Your task to perform on an android device: change text size in settings app Image 0: 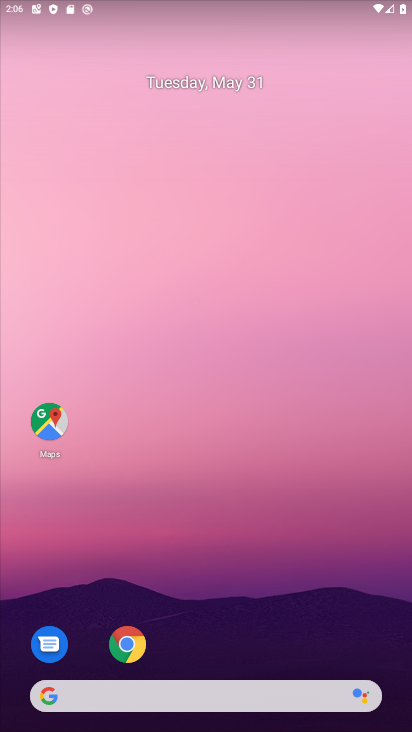
Step 0: drag from (390, 674) to (338, 189)
Your task to perform on an android device: change text size in settings app Image 1: 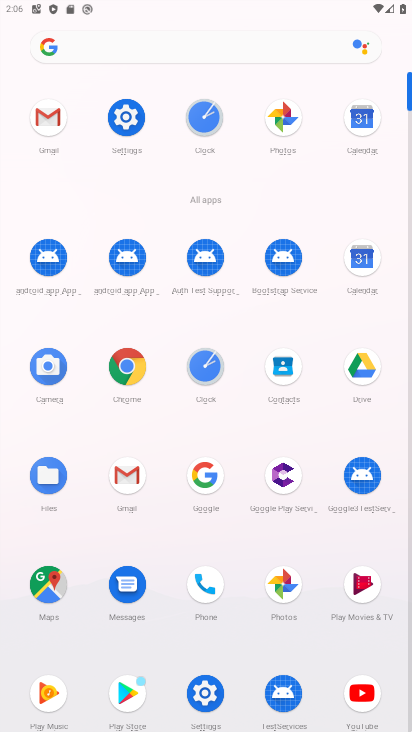
Step 1: click (134, 119)
Your task to perform on an android device: change text size in settings app Image 2: 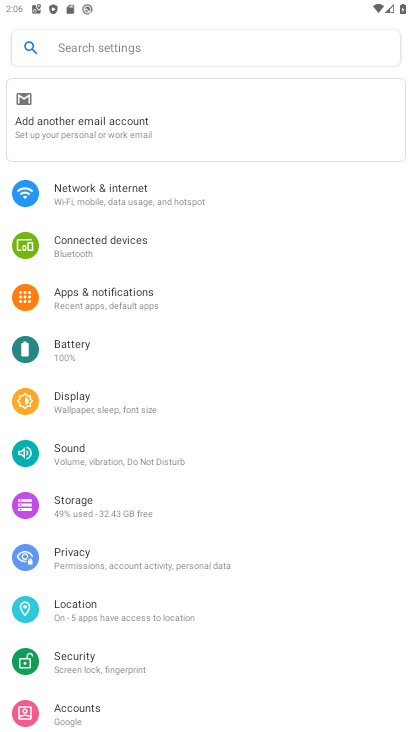
Step 2: click (77, 405)
Your task to perform on an android device: change text size in settings app Image 3: 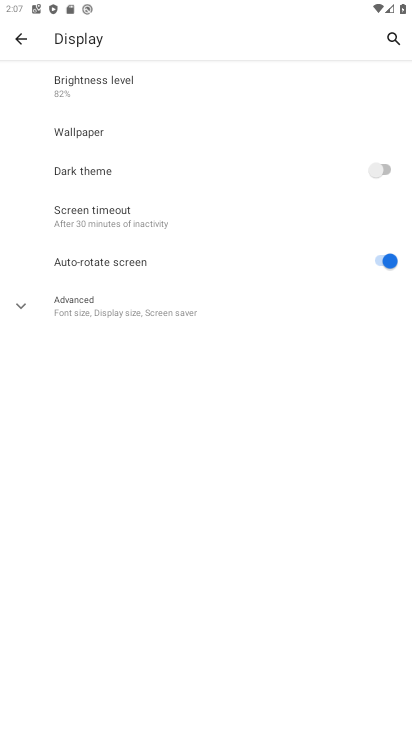
Step 3: click (11, 300)
Your task to perform on an android device: change text size in settings app Image 4: 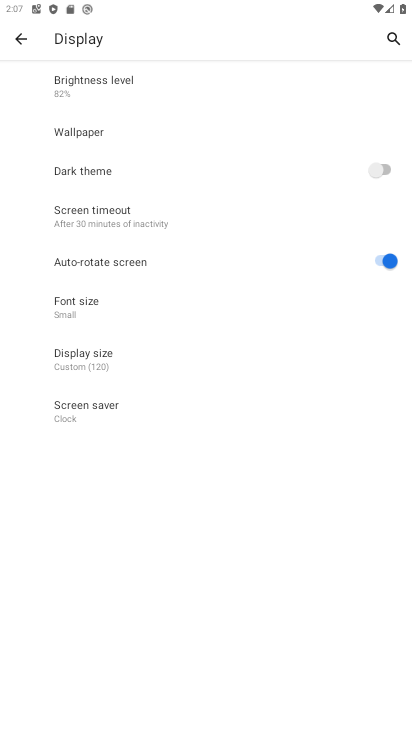
Step 4: click (84, 304)
Your task to perform on an android device: change text size in settings app Image 5: 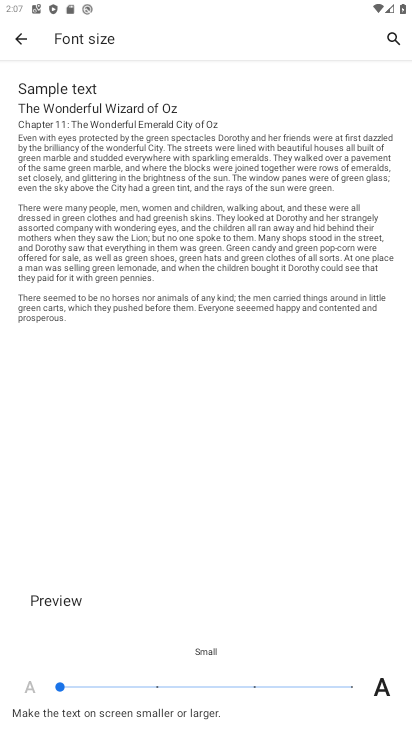
Step 5: click (105, 684)
Your task to perform on an android device: change text size in settings app Image 6: 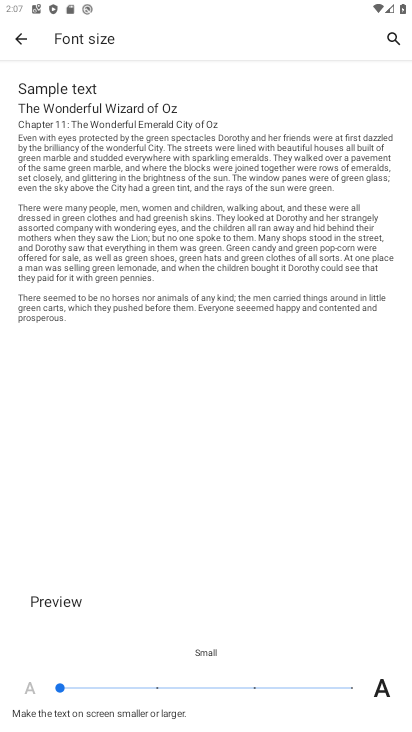
Step 6: click (154, 686)
Your task to perform on an android device: change text size in settings app Image 7: 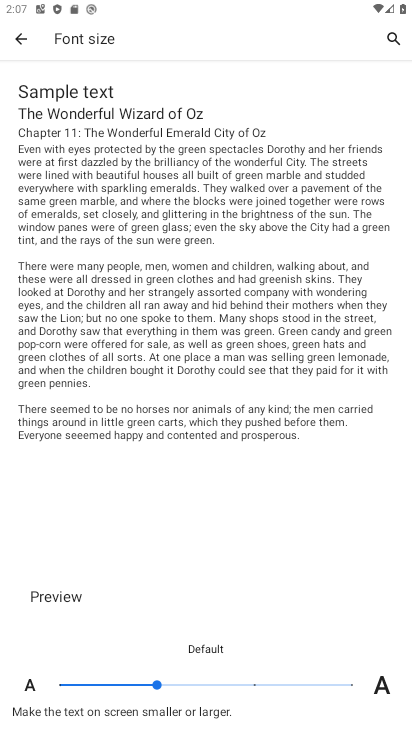
Step 7: task complete